Your task to perform on an android device: Open Google Maps Image 0: 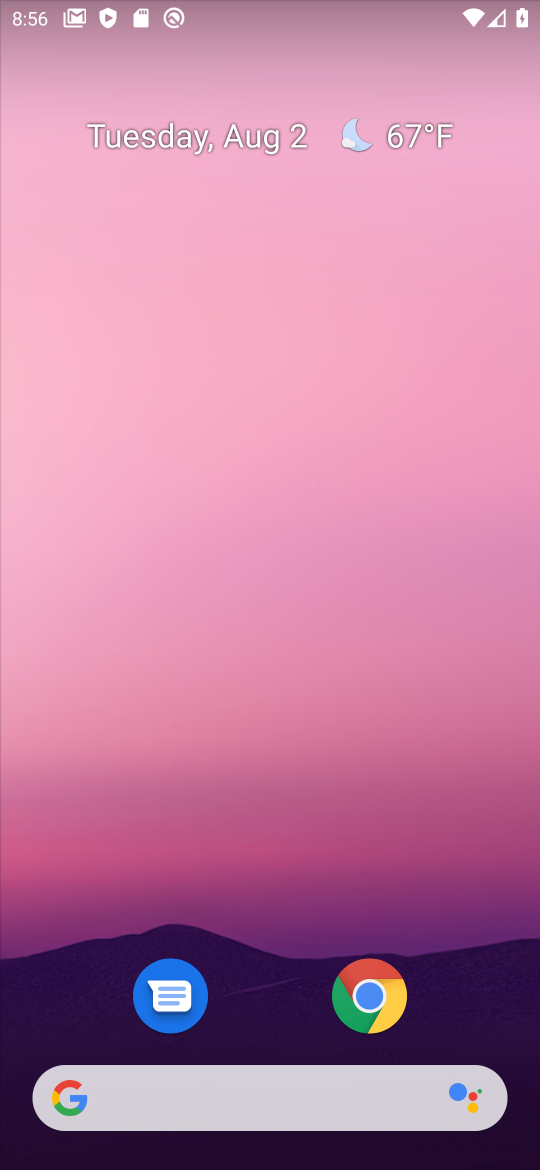
Step 0: drag from (308, 1001) to (378, 134)
Your task to perform on an android device: Open Google Maps Image 1: 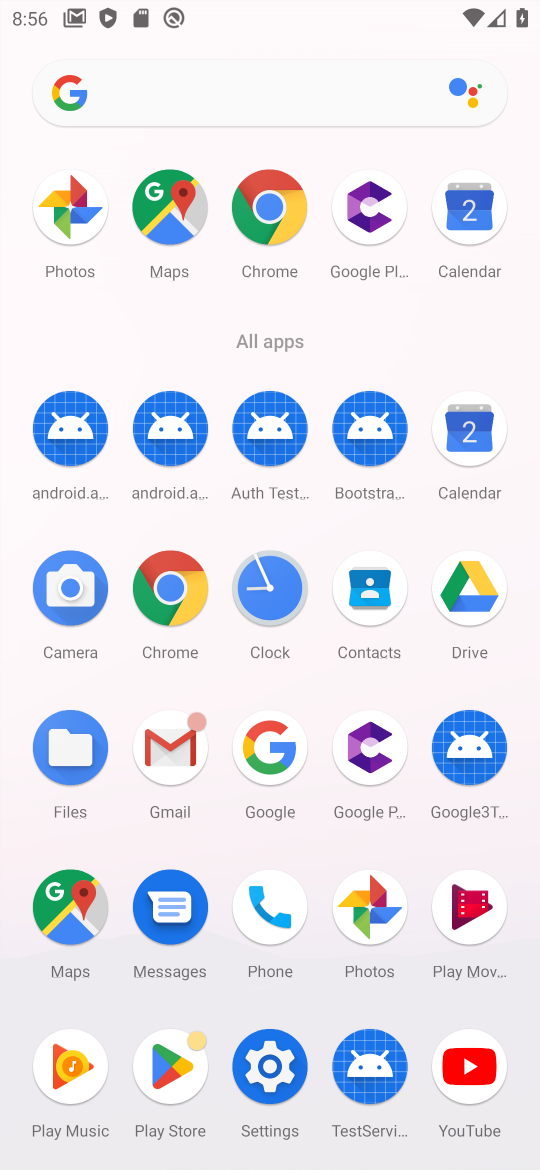
Step 1: click (67, 902)
Your task to perform on an android device: Open Google Maps Image 2: 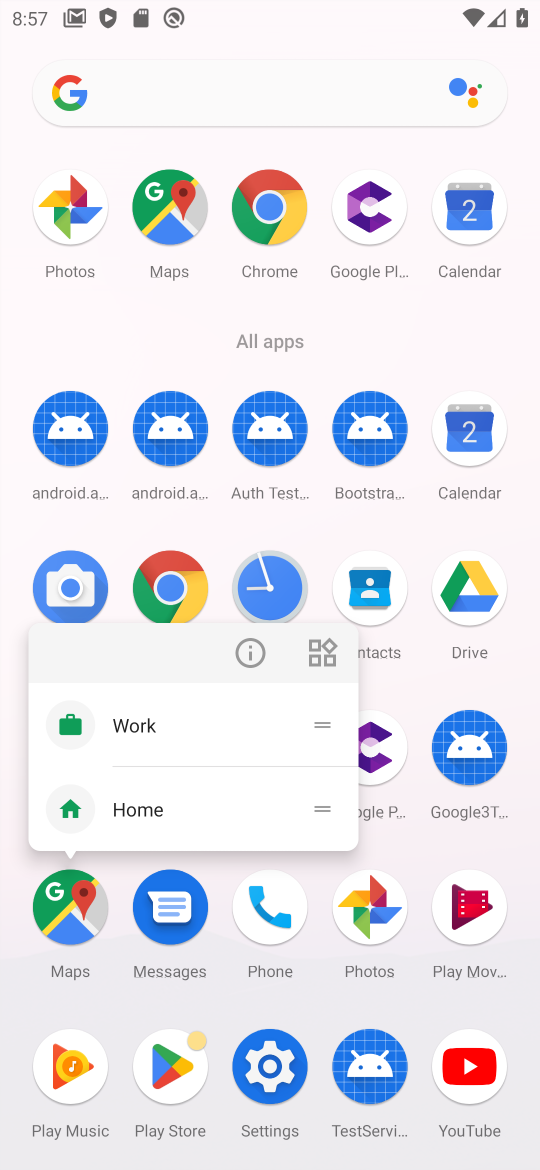
Step 2: click (56, 910)
Your task to perform on an android device: Open Google Maps Image 3: 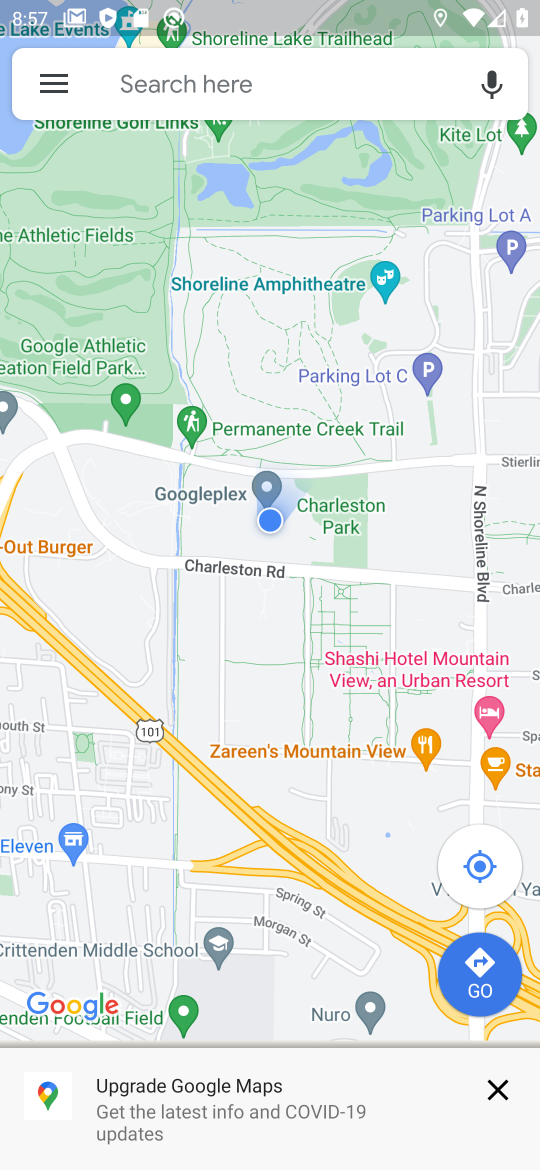
Step 3: task complete